Your task to perform on an android device: move a message to another label in the gmail app Image 0: 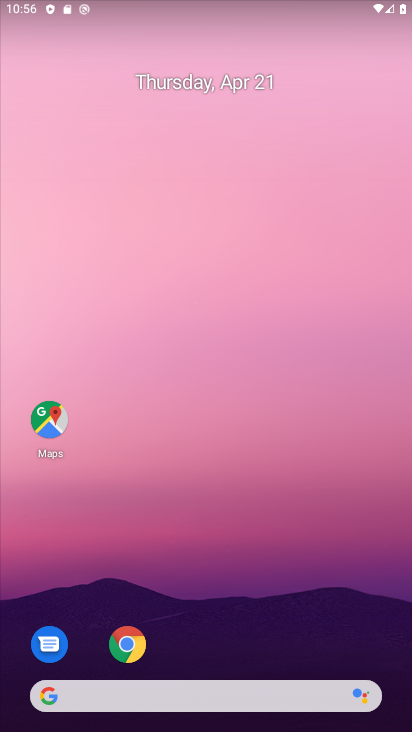
Step 0: drag from (250, 628) to (234, 250)
Your task to perform on an android device: move a message to another label in the gmail app Image 1: 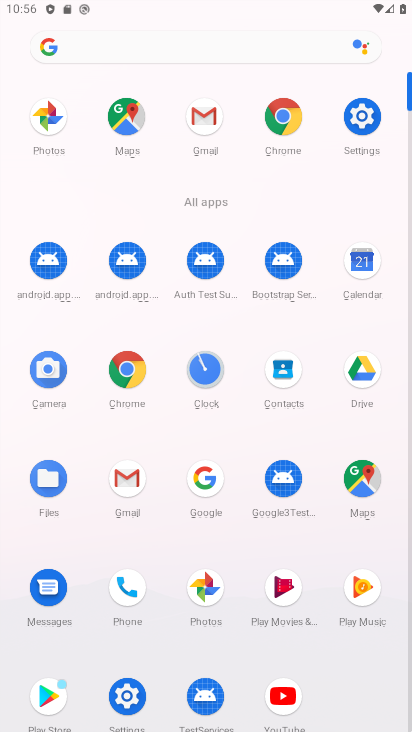
Step 1: click (205, 136)
Your task to perform on an android device: move a message to another label in the gmail app Image 2: 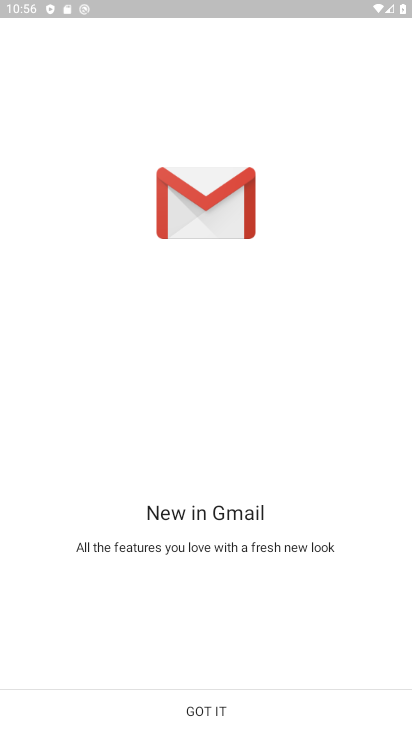
Step 2: click (210, 719)
Your task to perform on an android device: move a message to another label in the gmail app Image 3: 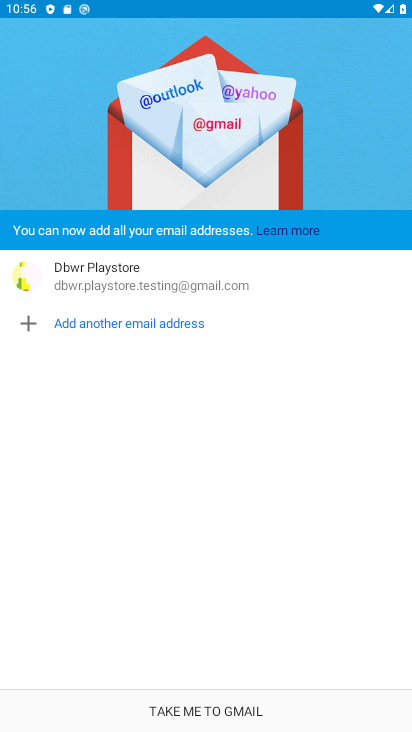
Step 3: click (210, 719)
Your task to perform on an android device: move a message to another label in the gmail app Image 4: 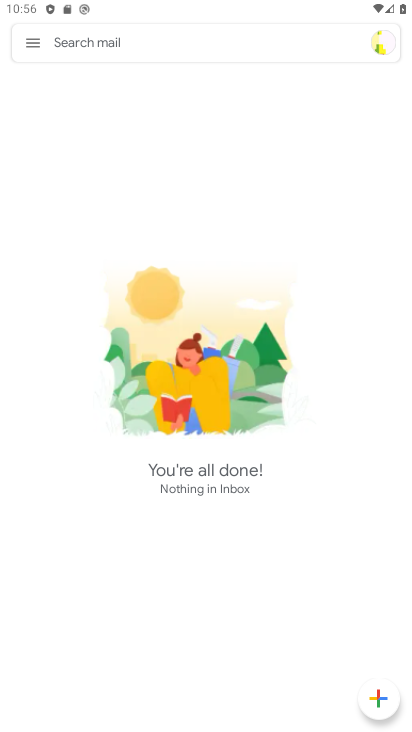
Step 4: task complete